Your task to perform on an android device: Open Android settings Image 0: 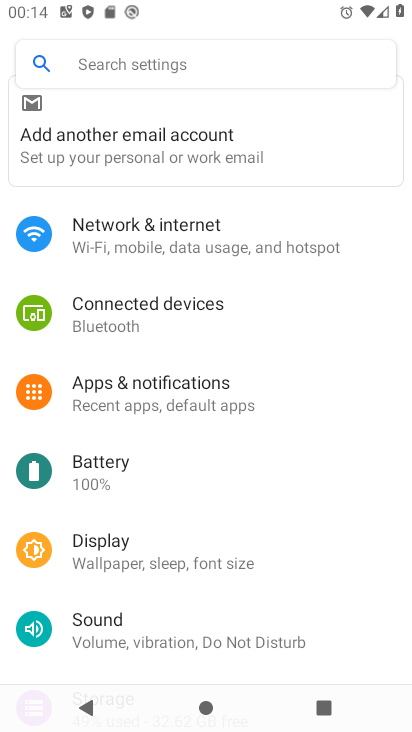
Step 0: drag from (145, 483) to (265, 124)
Your task to perform on an android device: Open Android settings Image 1: 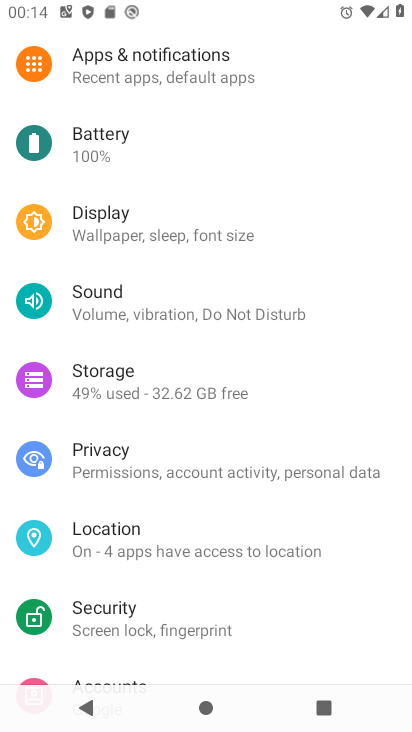
Step 1: task complete